Your task to perform on an android device: toggle airplane mode Image 0: 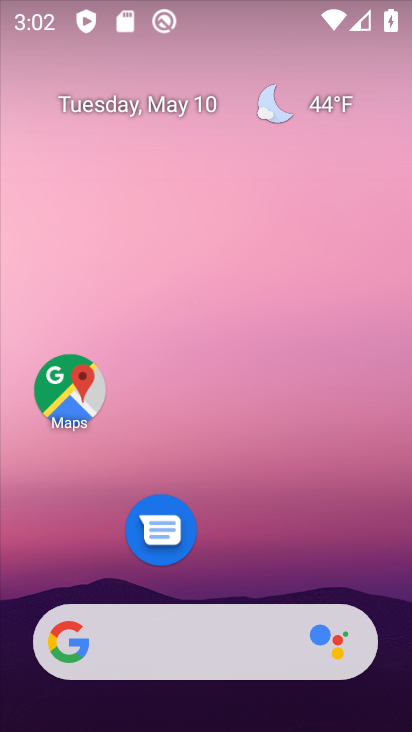
Step 0: drag from (255, 546) to (253, 117)
Your task to perform on an android device: toggle airplane mode Image 1: 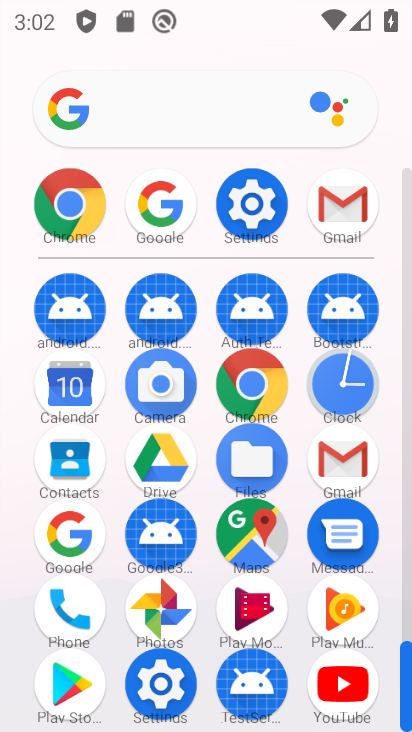
Step 1: click (253, 204)
Your task to perform on an android device: toggle airplane mode Image 2: 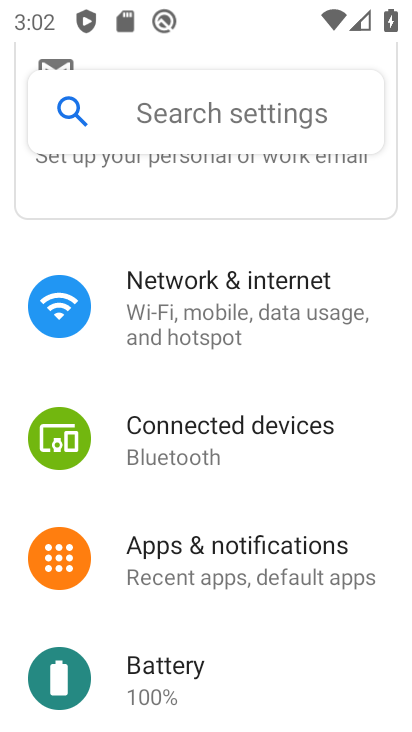
Step 2: drag from (242, 658) to (279, 624)
Your task to perform on an android device: toggle airplane mode Image 3: 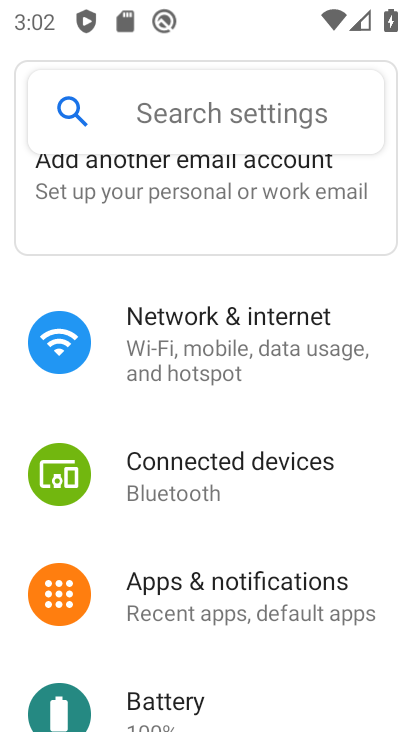
Step 3: click (210, 331)
Your task to perform on an android device: toggle airplane mode Image 4: 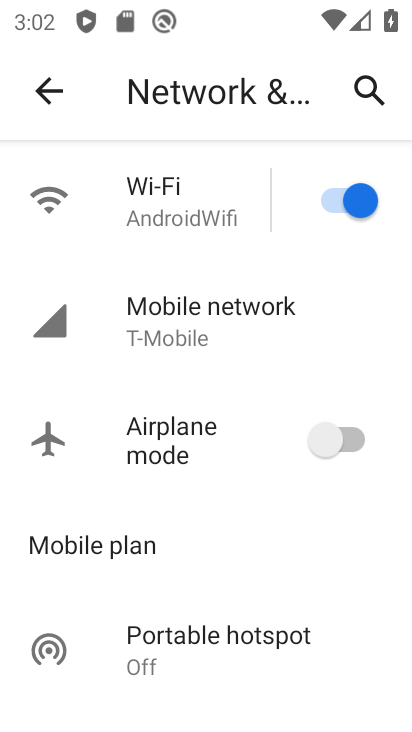
Step 4: click (353, 429)
Your task to perform on an android device: toggle airplane mode Image 5: 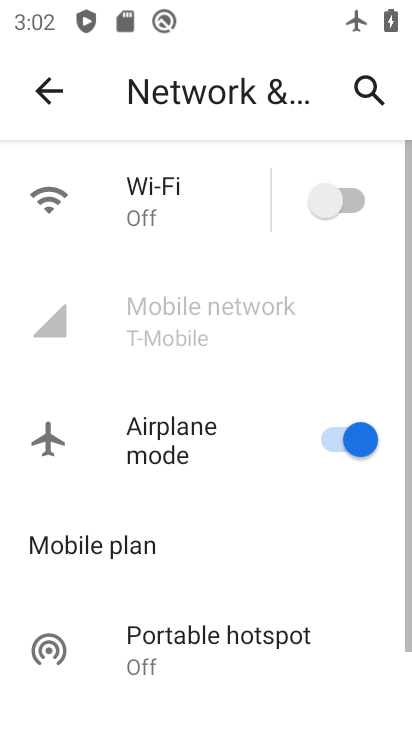
Step 5: task complete